Your task to perform on an android device: turn vacation reply on in the gmail app Image 0: 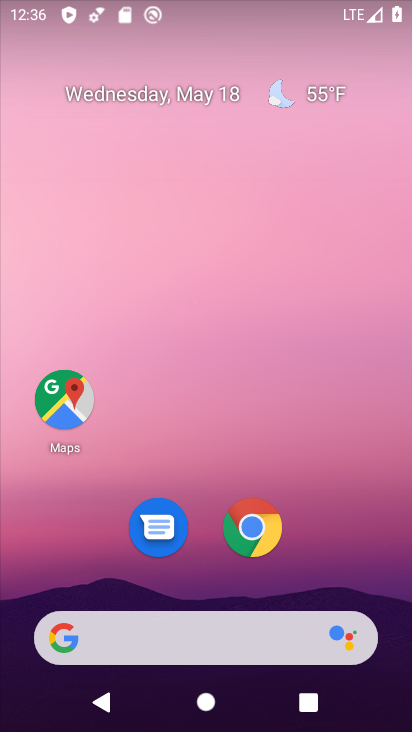
Step 0: drag from (334, 407) to (229, 84)
Your task to perform on an android device: turn vacation reply on in the gmail app Image 1: 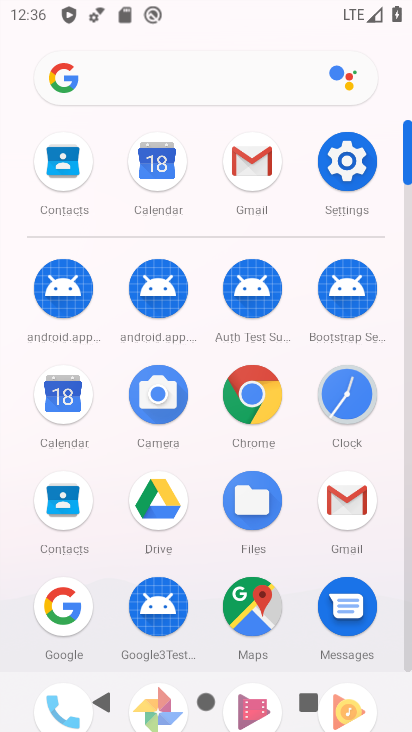
Step 1: click (347, 499)
Your task to perform on an android device: turn vacation reply on in the gmail app Image 2: 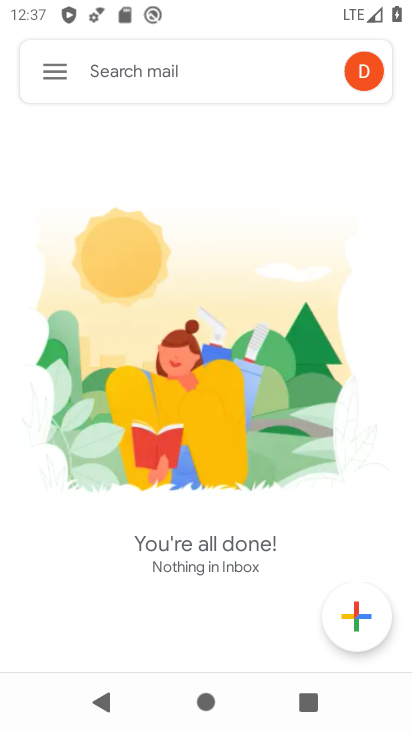
Step 2: click (69, 69)
Your task to perform on an android device: turn vacation reply on in the gmail app Image 3: 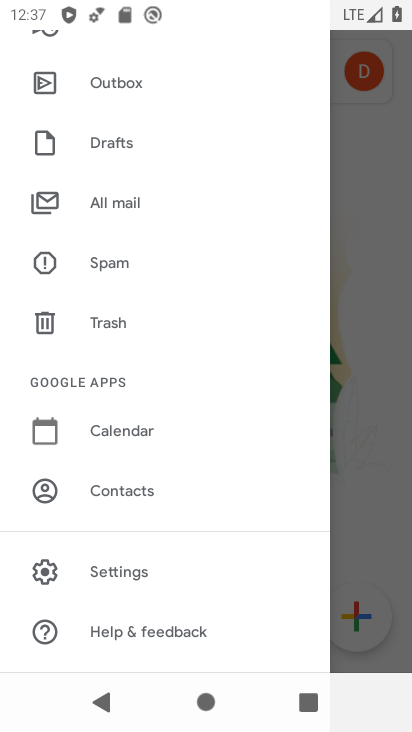
Step 3: click (172, 568)
Your task to perform on an android device: turn vacation reply on in the gmail app Image 4: 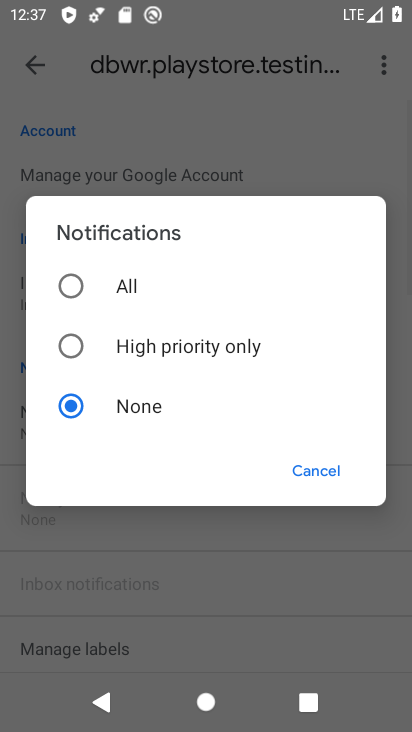
Step 4: click (325, 469)
Your task to perform on an android device: turn vacation reply on in the gmail app Image 5: 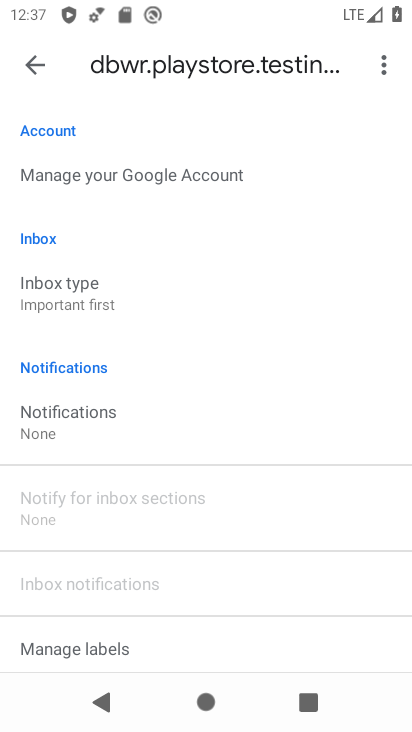
Step 5: drag from (197, 566) to (182, 92)
Your task to perform on an android device: turn vacation reply on in the gmail app Image 6: 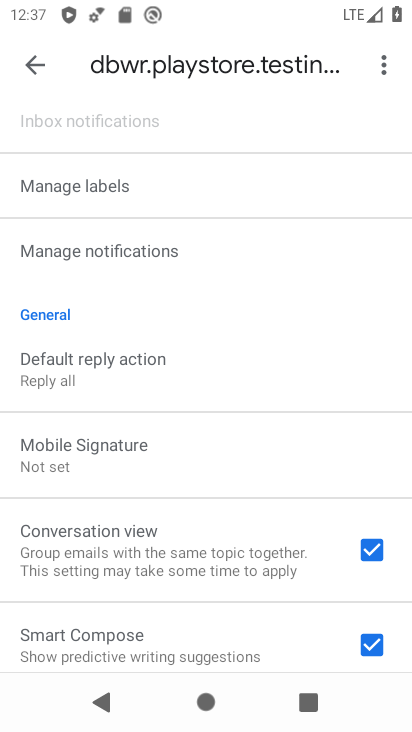
Step 6: drag from (163, 495) to (187, 131)
Your task to perform on an android device: turn vacation reply on in the gmail app Image 7: 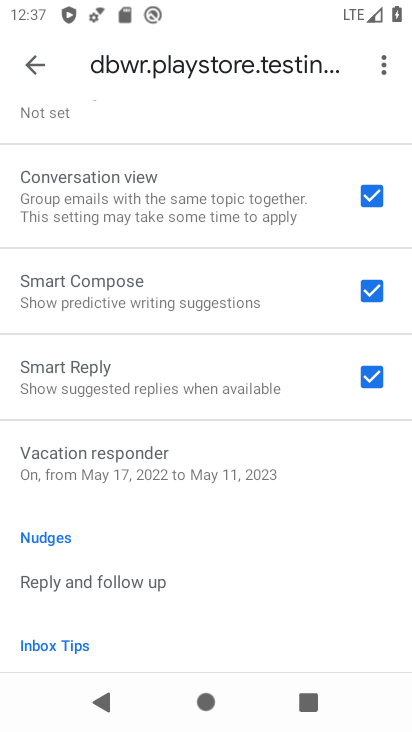
Step 7: click (147, 490)
Your task to perform on an android device: turn vacation reply on in the gmail app Image 8: 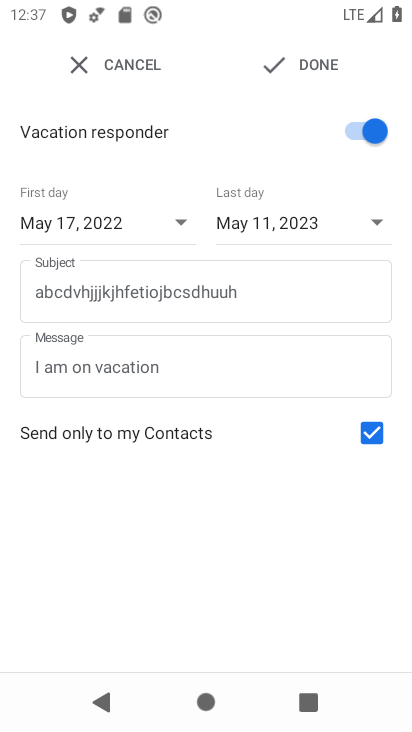
Step 8: click (330, 61)
Your task to perform on an android device: turn vacation reply on in the gmail app Image 9: 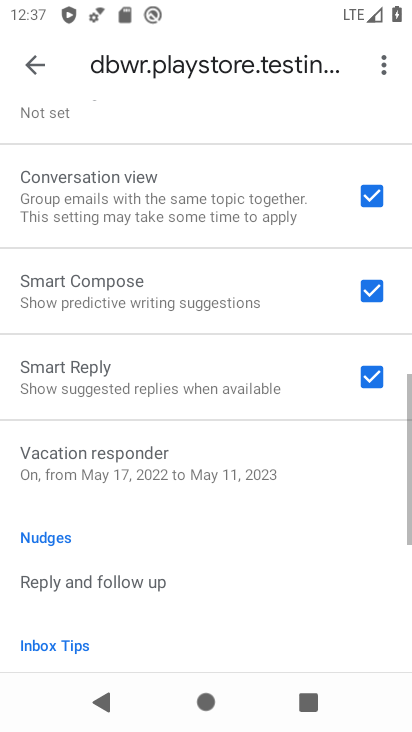
Step 9: task complete